Your task to perform on an android device: Open Google Chrome Image 0: 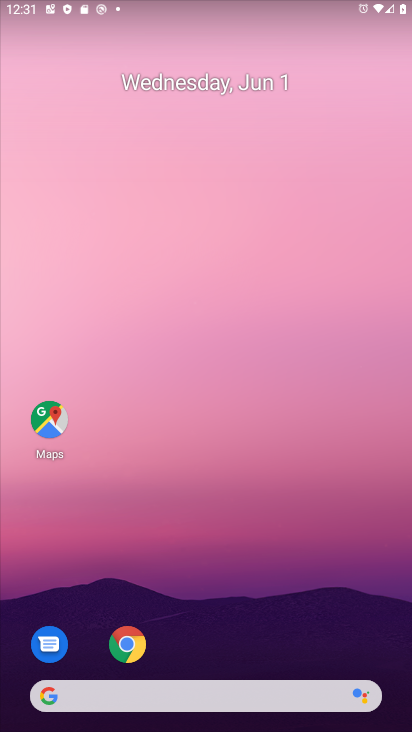
Step 0: drag from (310, 594) to (287, 109)
Your task to perform on an android device: Open Google Chrome Image 1: 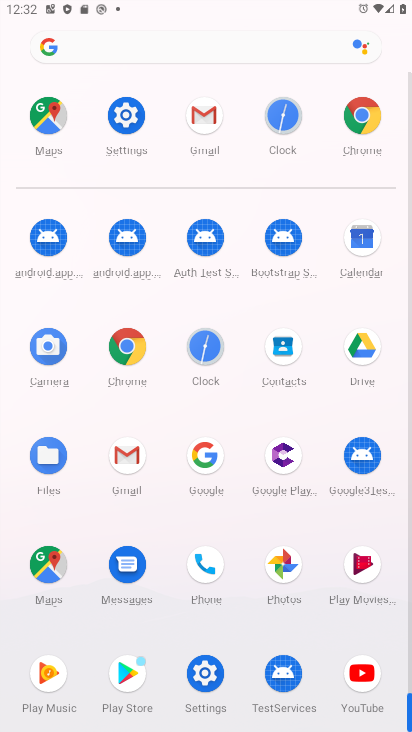
Step 1: click (155, 362)
Your task to perform on an android device: Open Google Chrome Image 2: 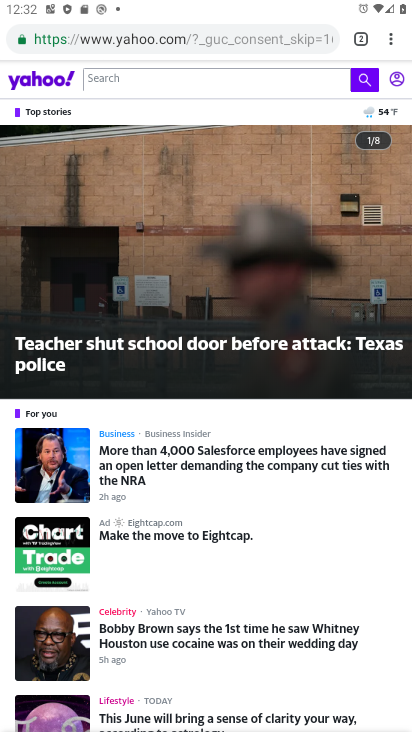
Step 2: task complete